Your task to perform on an android device: change your default location settings in chrome Image 0: 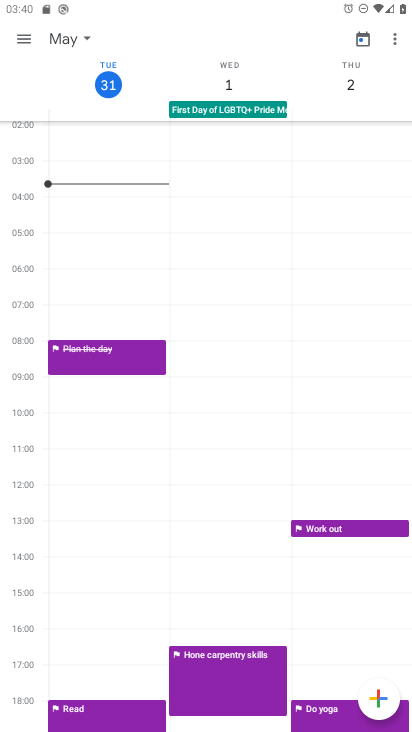
Step 0: press home button
Your task to perform on an android device: change your default location settings in chrome Image 1: 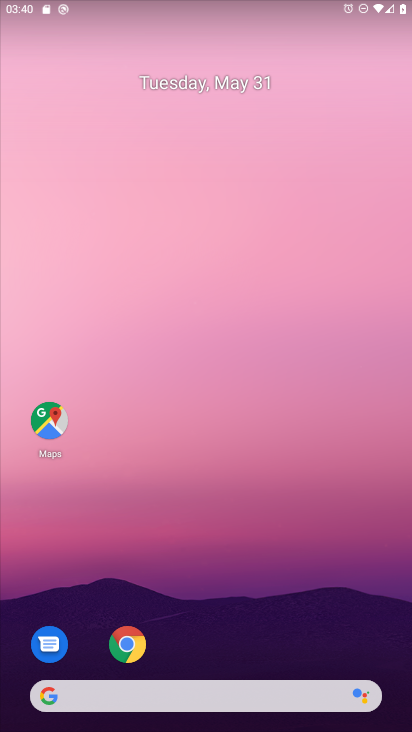
Step 1: drag from (287, 599) to (250, 113)
Your task to perform on an android device: change your default location settings in chrome Image 2: 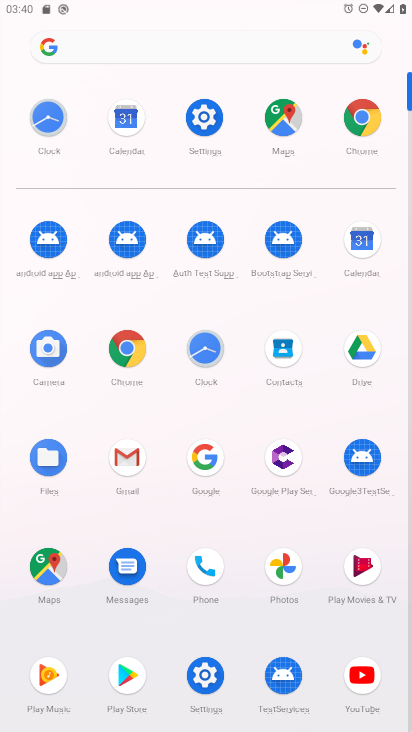
Step 2: click (365, 121)
Your task to perform on an android device: change your default location settings in chrome Image 3: 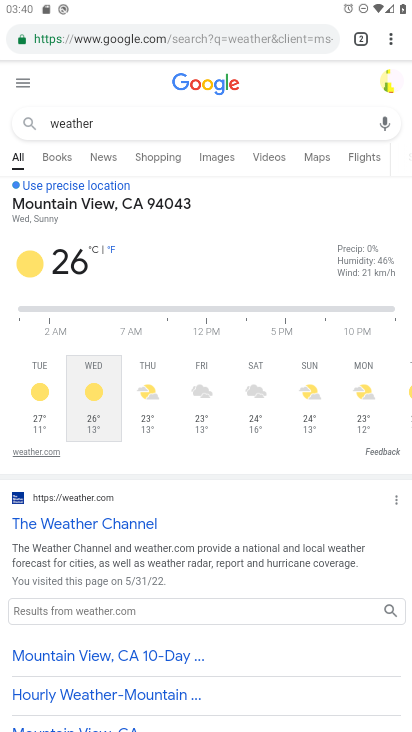
Step 3: drag from (389, 40) to (262, 433)
Your task to perform on an android device: change your default location settings in chrome Image 4: 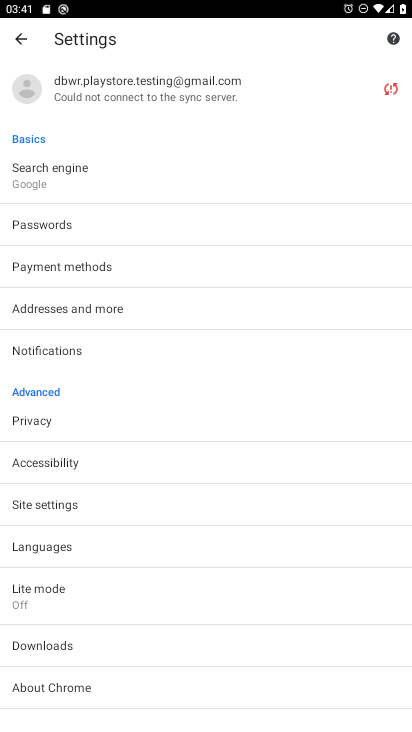
Step 4: drag from (174, 506) to (215, 256)
Your task to perform on an android device: change your default location settings in chrome Image 5: 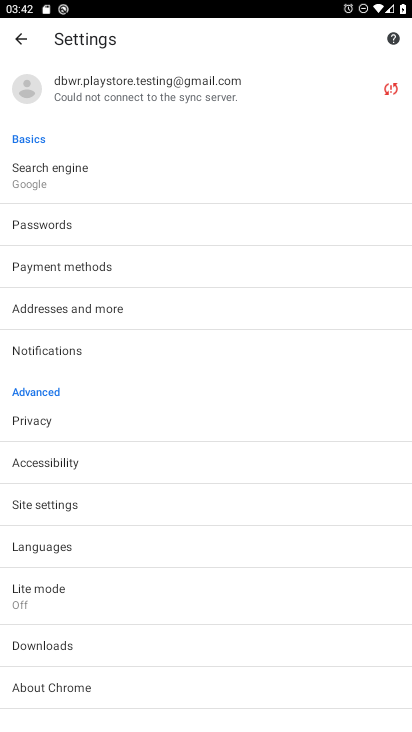
Step 5: click (54, 502)
Your task to perform on an android device: change your default location settings in chrome Image 6: 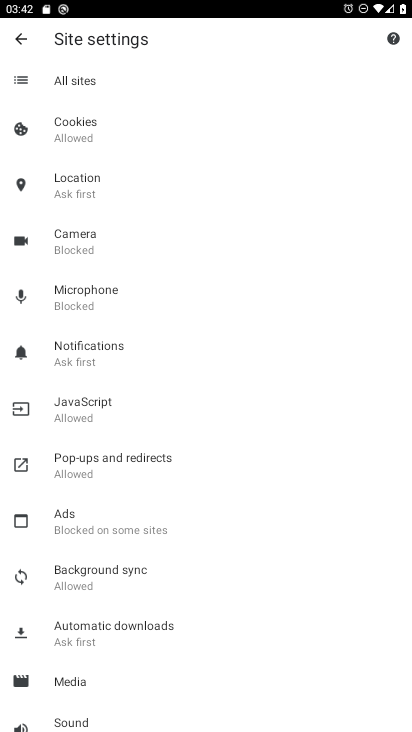
Step 6: click (89, 189)
Your task to perform on an android device: change your default location settings in chrome Image 7: 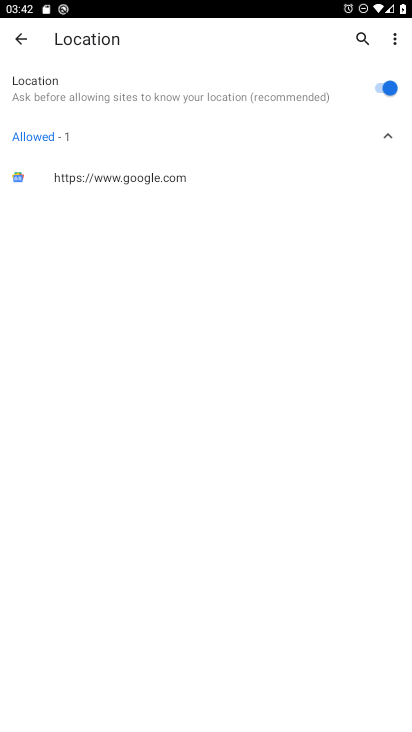
Step 7: click (373, 75)
Your task to perform on an android device: change your default location settings in chrome Image 8: 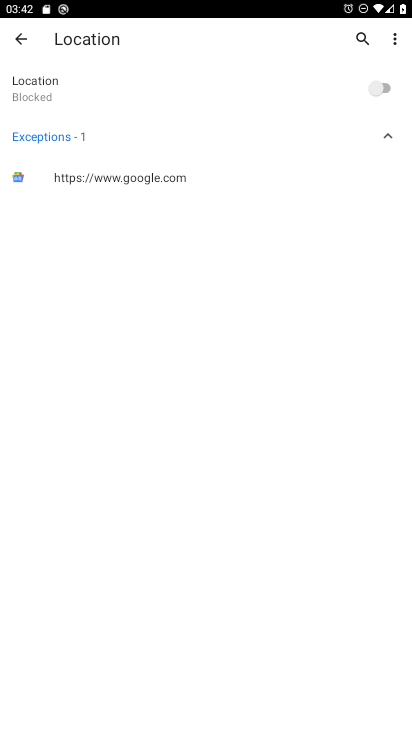
Step 8: task complete